Your task to perform on an android device: turn on wifi Image 0: 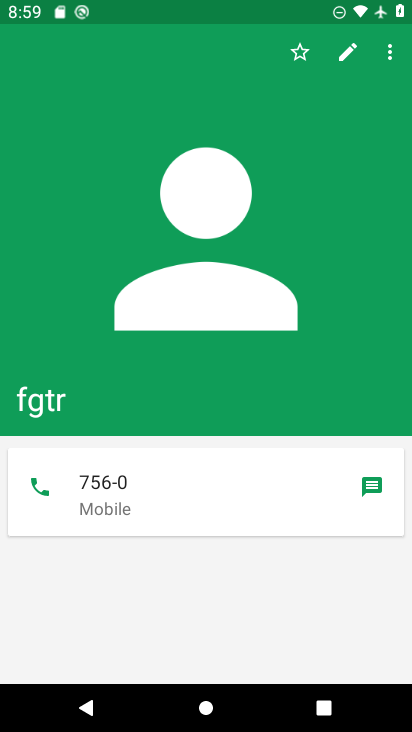
Step 0: press home button
Your task to perform on an android device: turn on wifi Image 1: 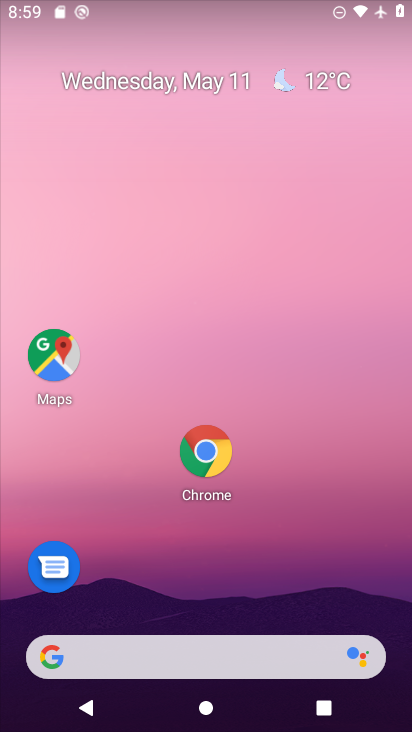
Step 1: drag from (168, 664) to (311, 94)
Your task to perform on an android device: turn on wifi Image 2: 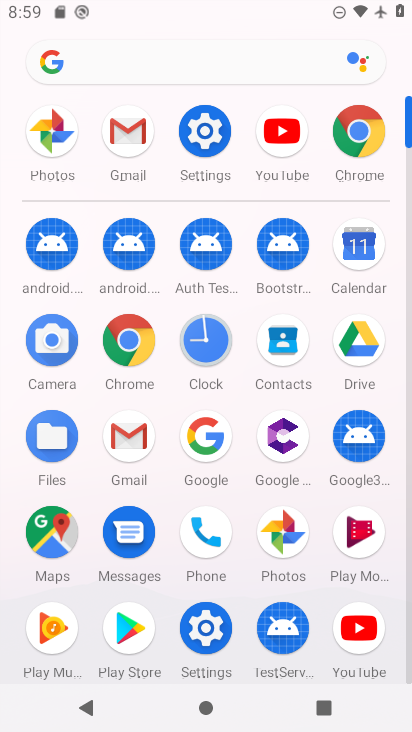
Step 2: click (212, 141)
Your task to perform on an android device: turn on wifi Image 3: 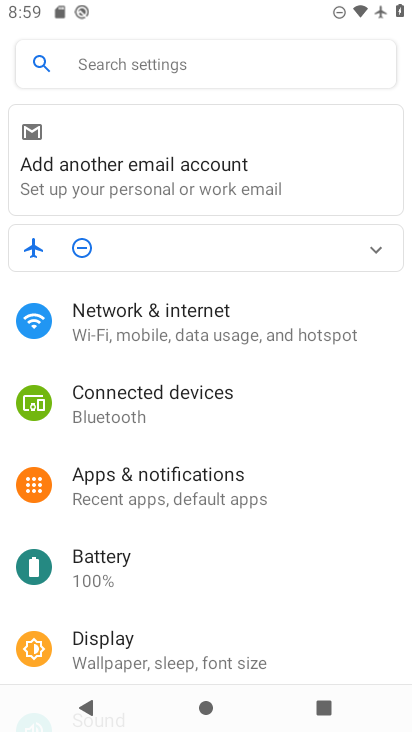
Step 3: click (203, 323)
Your task to perform on an android device: turn on wifi Image 4: 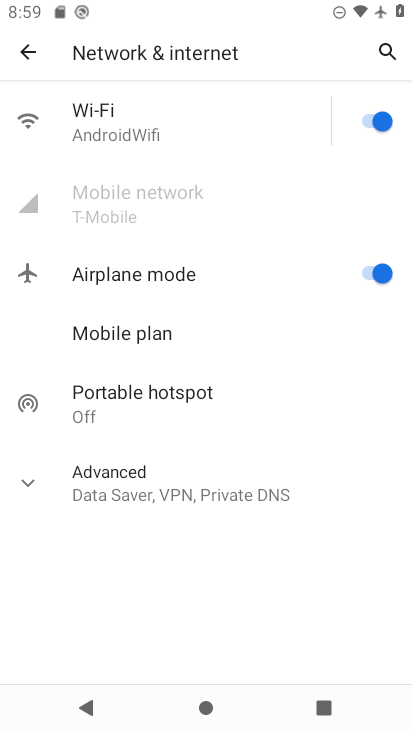
Step 4: task complete